Your task to perform on an android device: change text size in settings app Image 0: 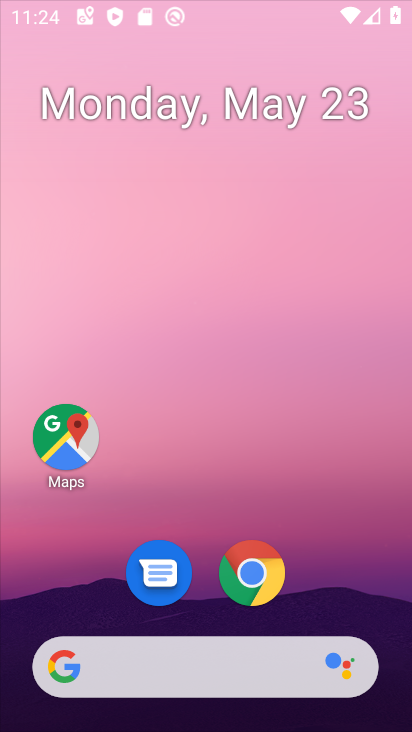
Step 0: click (309, 149)
Your task to perform on an android device: change text size in settings app Image 1: 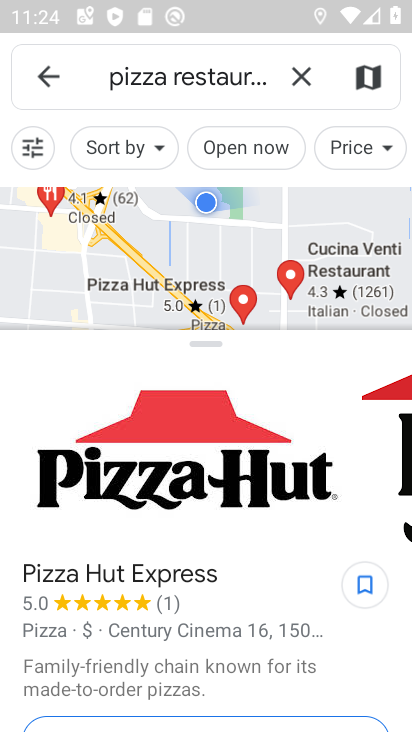
Step 1: press home button
Your task to perform on an android device: change text size in settings app Image 2: 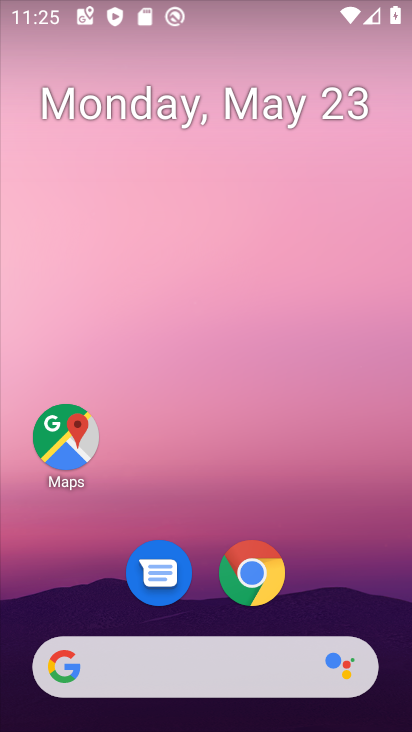
Step 2: drag from (332, 615) to (347, 82)
Your task to perform on an android device: change text size in settings app Image 3: 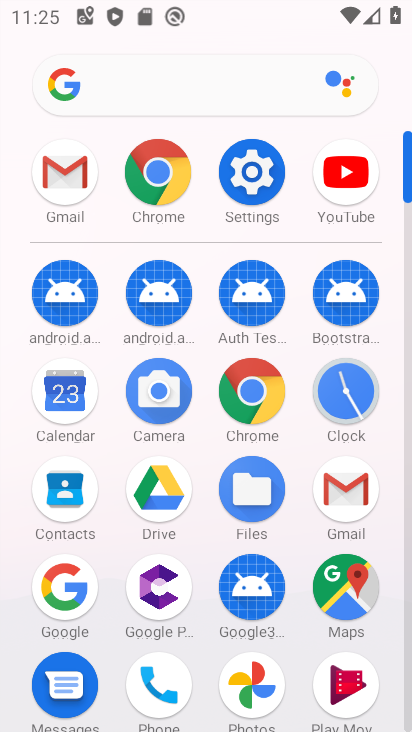
Step 3: click (261, 203)
Your task to perform on an android device: change text size in settings app Image 4: 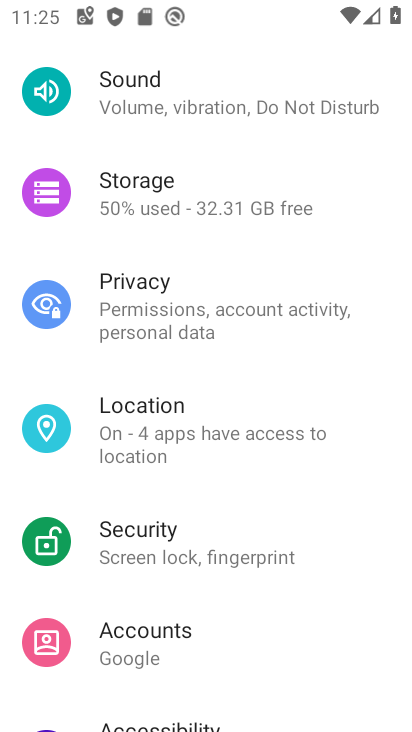
Step 4: drag from (233, 255) to (273, 560)
Your task to perform on an android device: change text size in settings app Image 5: 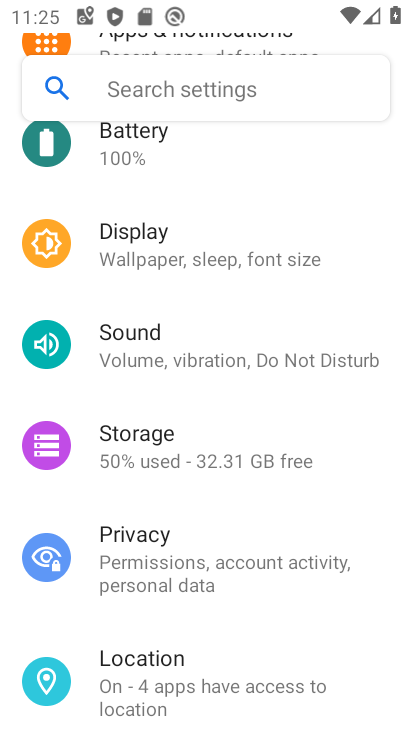
Step 5: click (235, 242)
Your task to perform on an android device: change text size in settings app Image 6: 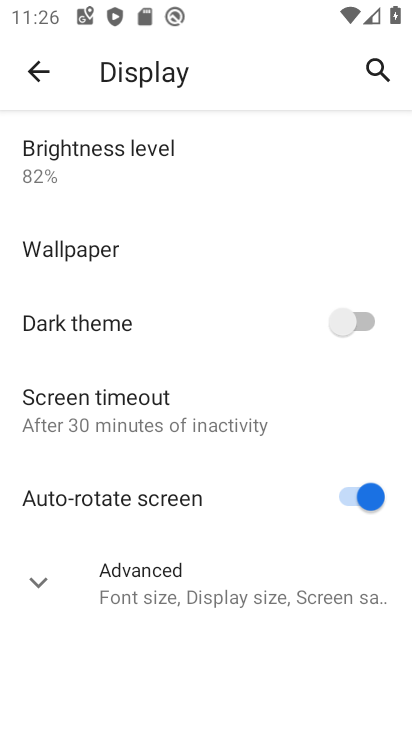
Step 6: click (201, 575)
Your task to perform on an android device: change text size in settings app Image 7: 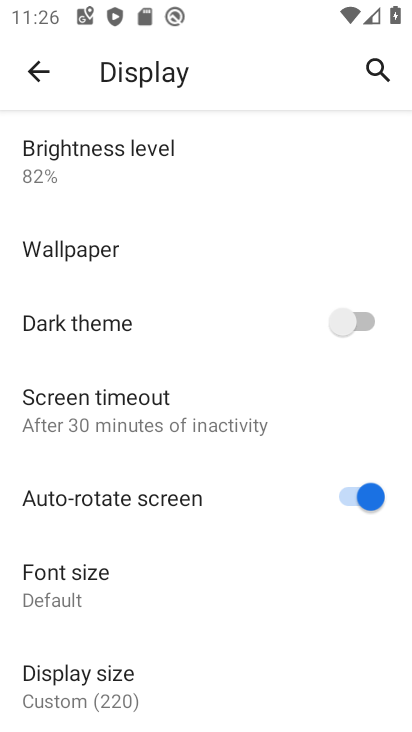
Step 7: drag from (207, 628) to (166, 481)
Your task to perform on an android device: change text size in settings app Image 8: 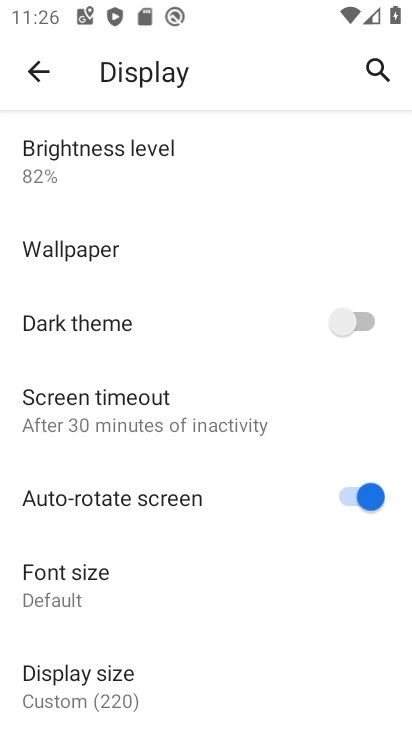
Step 8: click (158, 589)
Your task to perform on an android device: change text size in settings app Image 9: 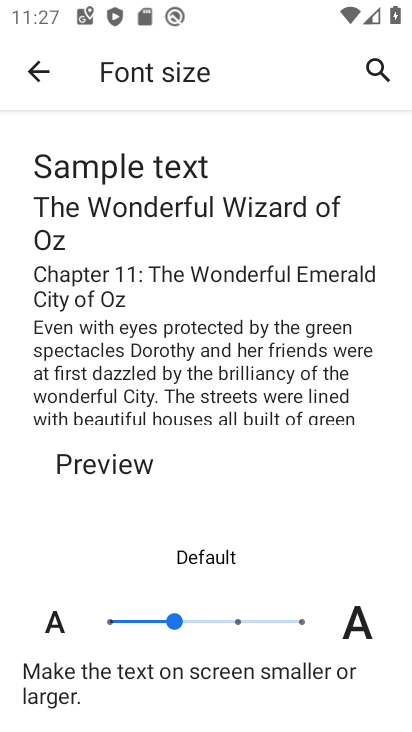
Step 9: click (234, 616)
Your task to perform on an android device: change text size in settings app Image 10: 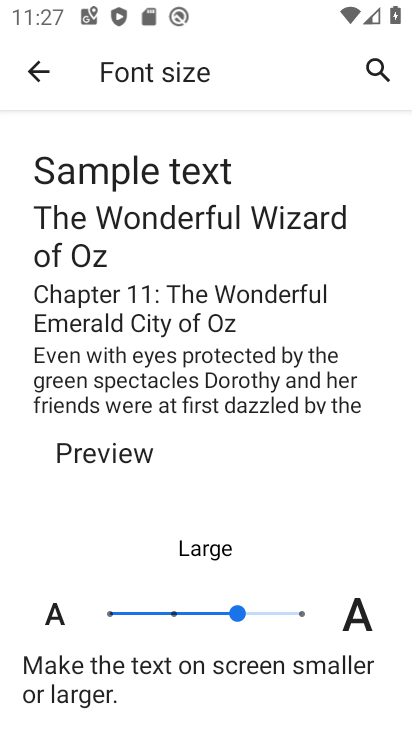
Step 10: task complete